Your task to perform on an android device: Open network settings Image 0: 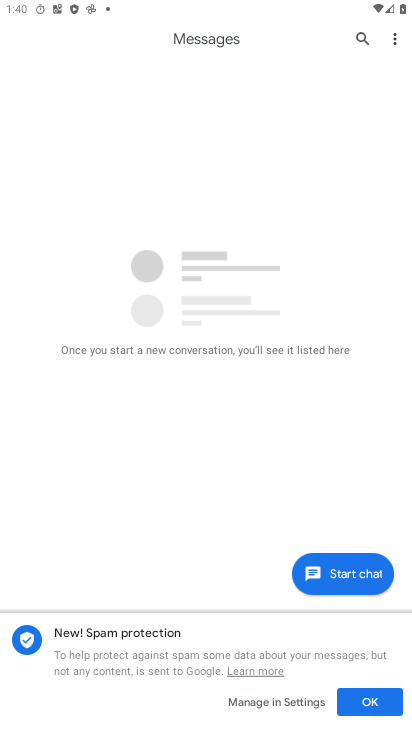
Step 0: press home button
Your task to perform on an android device: Open network settings Image 1: 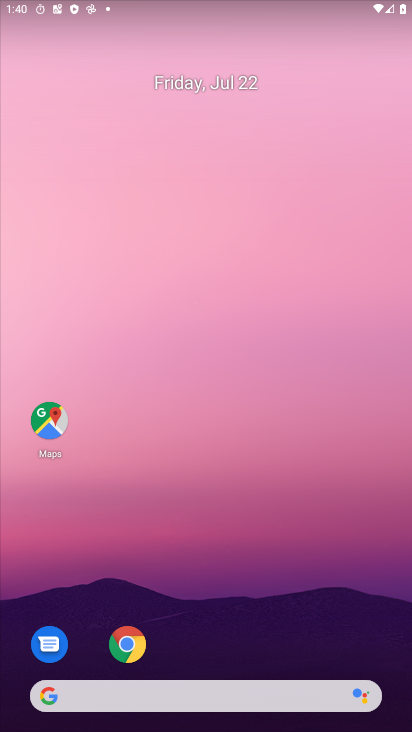
Step 1: drag from (242, 20) to (317, 172)
Your task to perform on an android device: Open network settings Image 2: 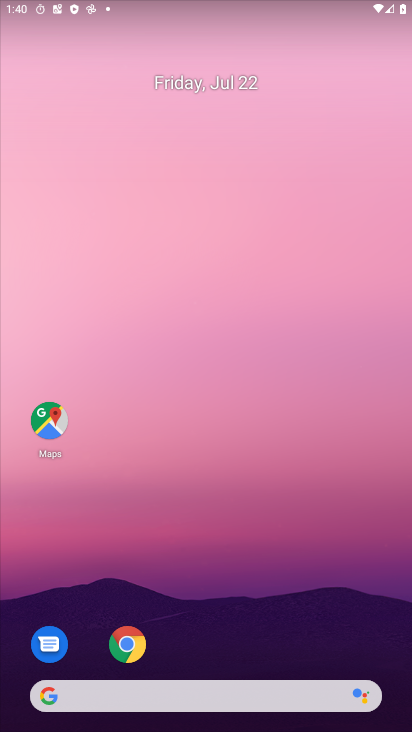
Step 2: drag from (172, 497) to (135, 9)
Your task to perform on an android device: Open network settings Image 3: 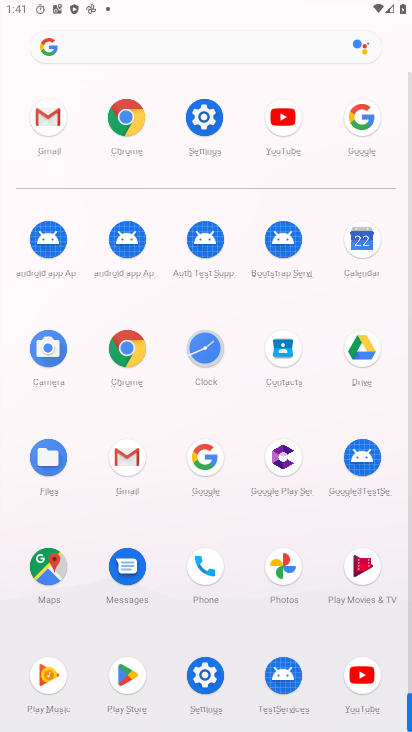
Step 3: click (203, 138)
Your task to perform on an android device: Open network settings Image 4: 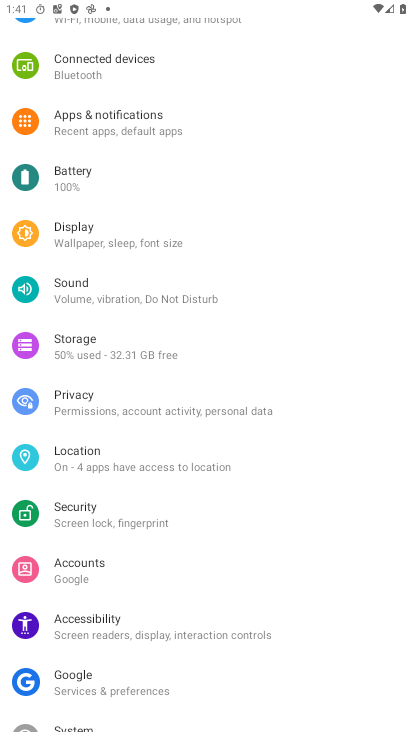
Step 4: drag from (127, 92) to (145, 479)
Your task to perform on an android device: Open network settings Image 5: 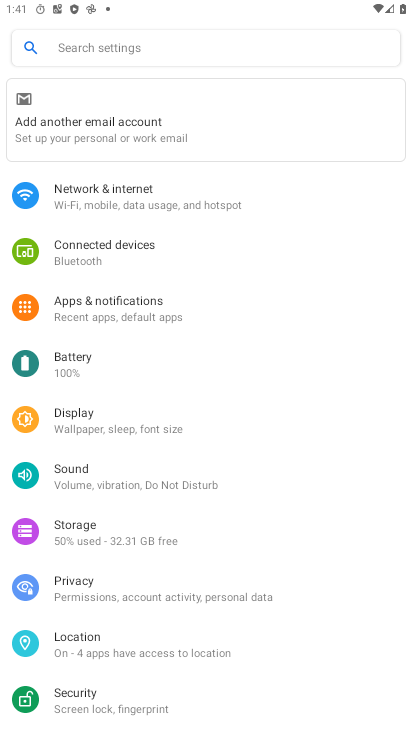
Step 5: click (191, 205)
Your task to perform on an android device: Open network settings Image 6: 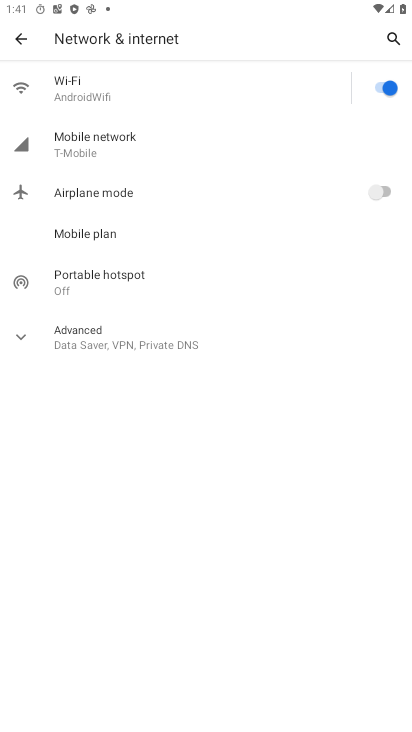
Step 6: click (141, 145)
Your task to perform on an android device: Open network settings Image 7: 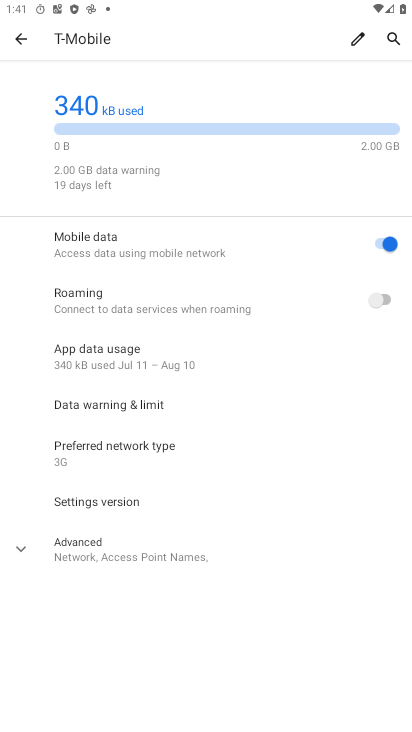
Step 7: task complete